Your task to perform on an android device: Open internet settings Image 0: 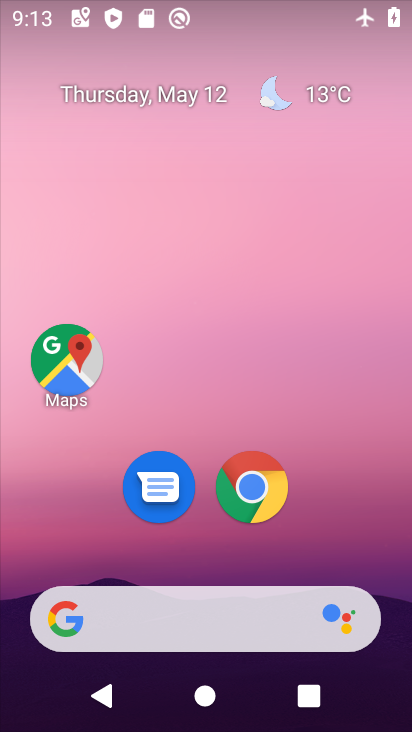
Step 0: drag from (209, 11) to (182, 601)
Your task to perform on an android device: Open internet settings Image 1: 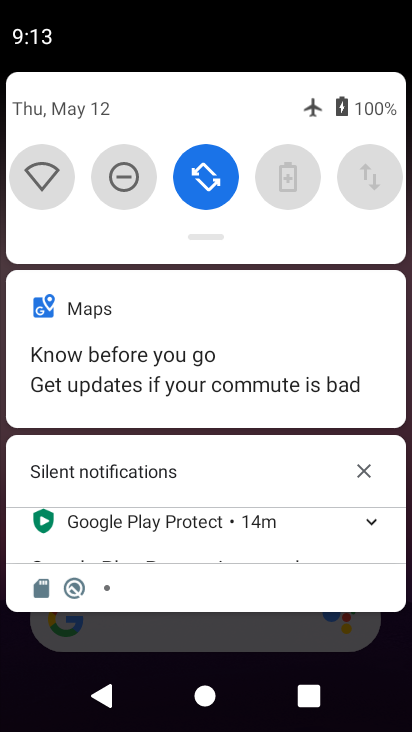
Step 1: click (364, 180)
Your task to perform on an android device: Open internet settings Image 2: 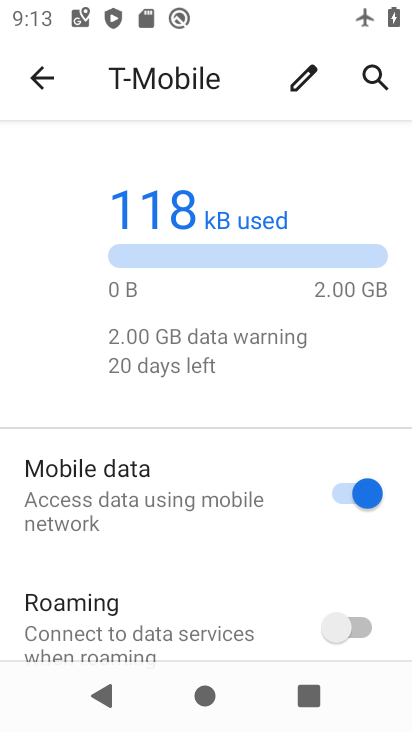
Step 2: task complete